Your task to perform on an android device: Open Chrome and go to settings Image 0: 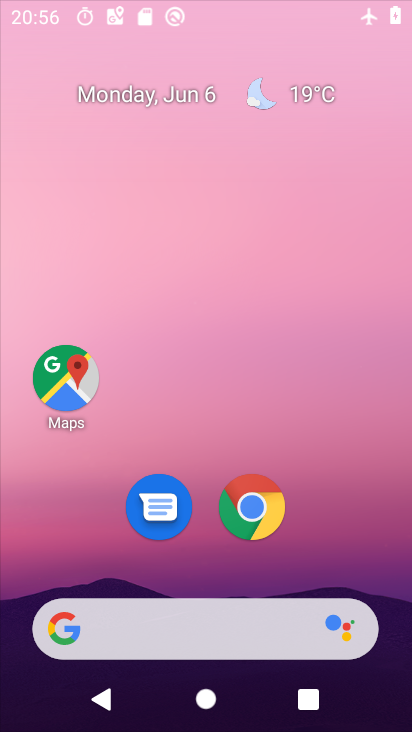
Step 0: press home button
Your task to perform on an android device: Open Chrome and go to settings Image 1: 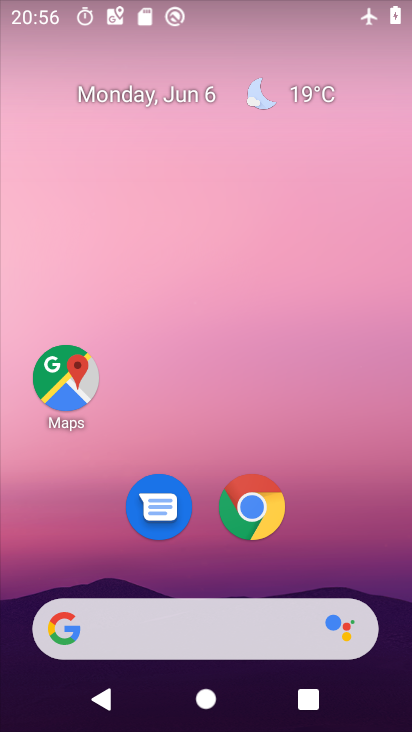
Step 1: click (250, 505)
Your task to perform on an android device: Open Chrome and go to settings Image 2: 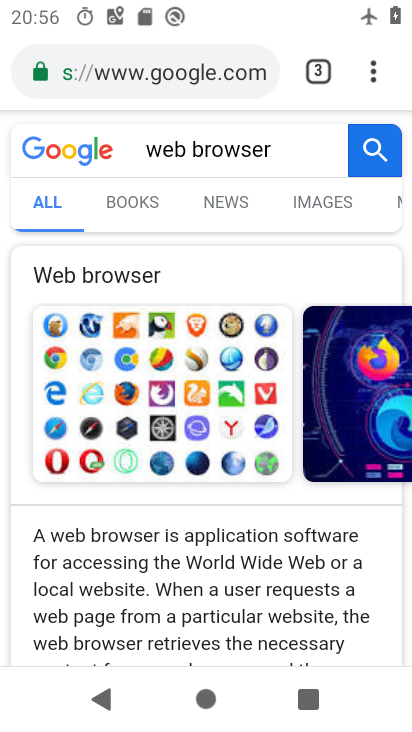
Step 2: task complete